Your task to perform on an android device: Go to Maps Image 0: 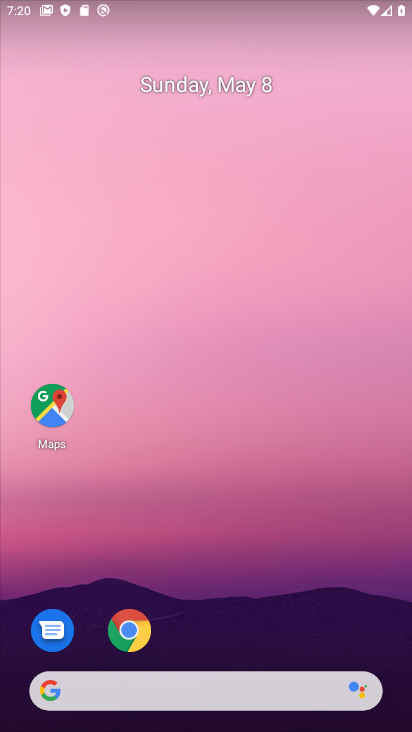
Step 0: click (61, 397)
Your task to perform on an android device: Go to Maps Image 1: 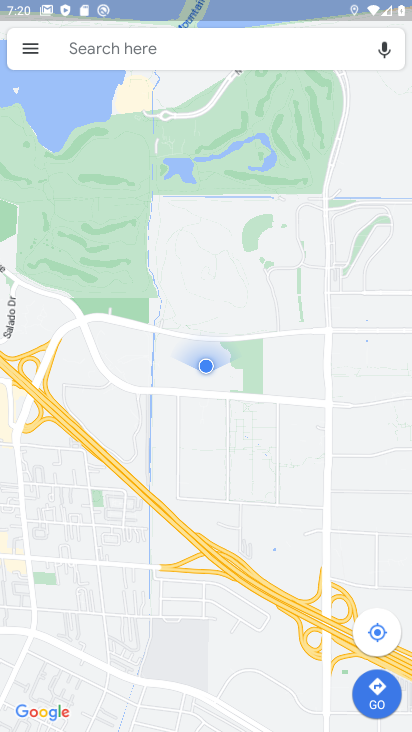
Step 1: task complete